Your task to perform on an android device: open chrome privacy settings Image 0: 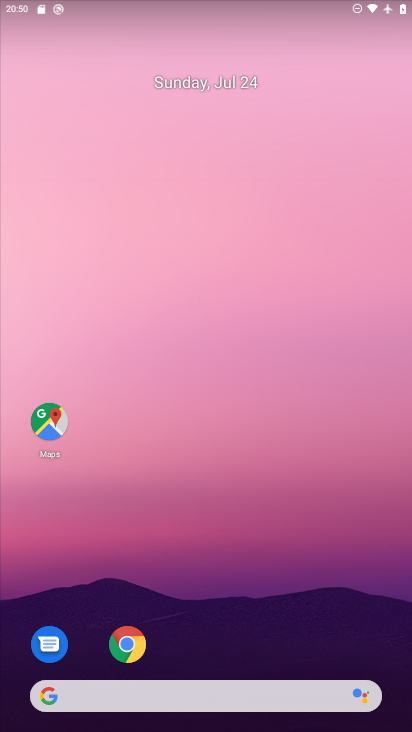
Step 0: click (124, 642)
Your task to perform on an android device: open chrome privacy settings Image 1: 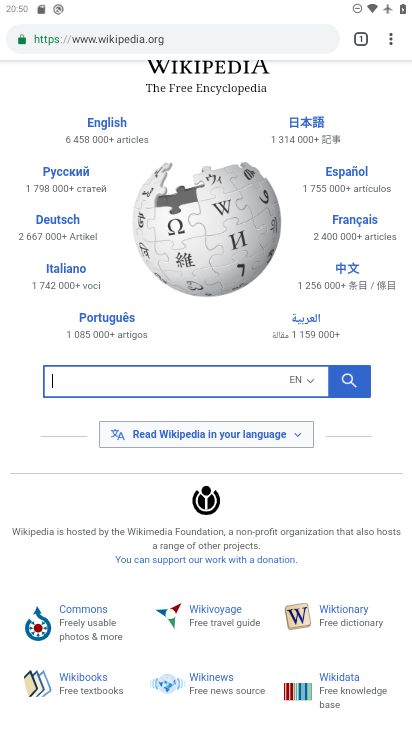
Step 1: click (394, 44)
Your task to perform on an android device: open chrome privacy settings Image 2: 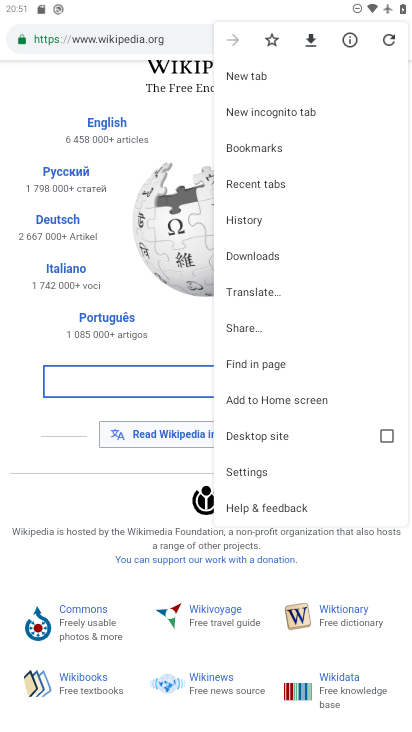
Step 2: click (262, 470)
Your task to perform on an android device: open chrome privacy settings Image 3: 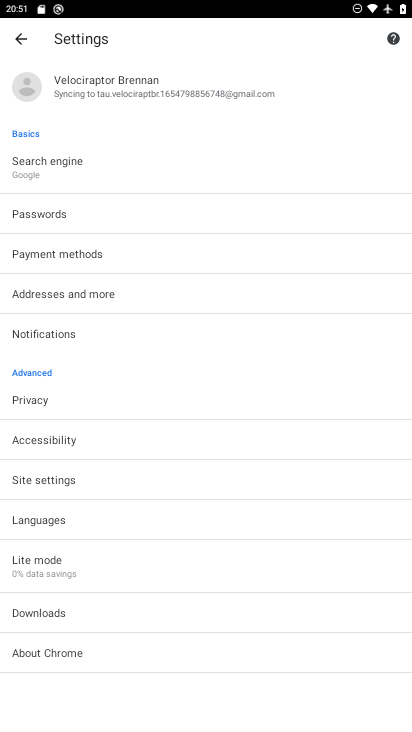
Step 3: click (28, 398)
Your task to perform on an android device: open chrome privacy settings Image 4: 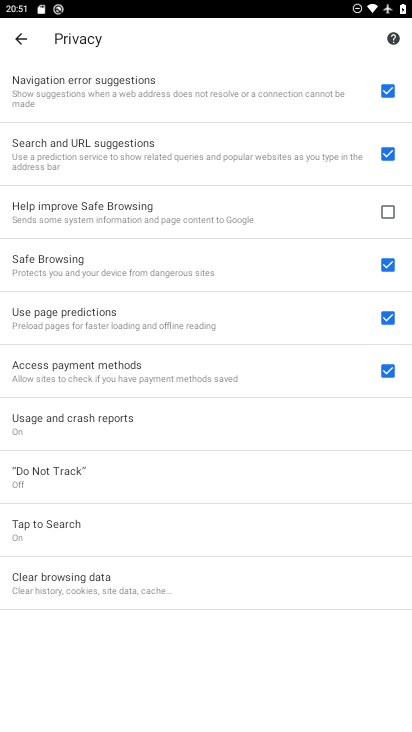
Step 4: task complete